Your task to perform on an android device: Show me recent news Image 0: 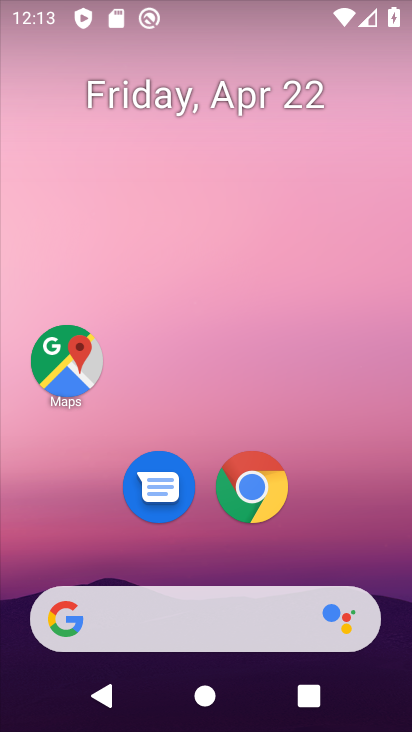
Step 0: click (224, 605)
Your task to perform on an android device: Show me recent news Image 1: 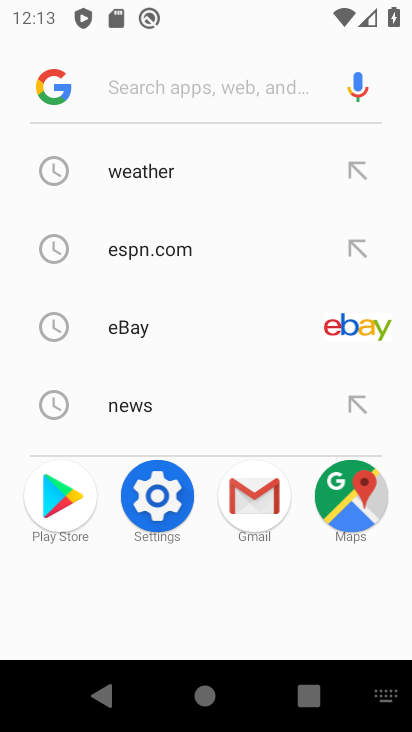
Step 1: click (55, 91)
Your task to perform on an android device: Show me recent news Image 2: 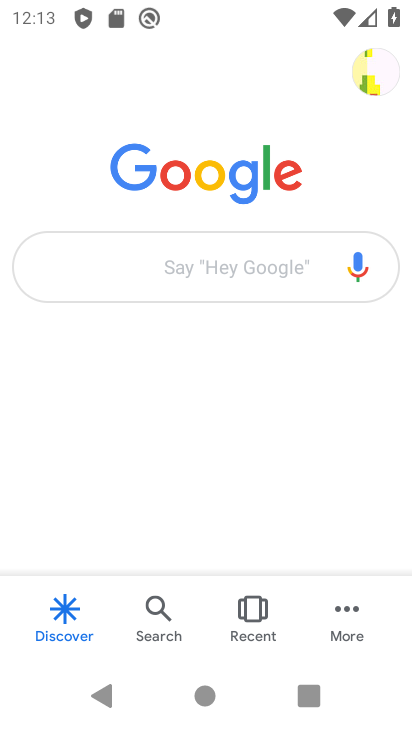
Step 2: task complete